Your task to perform on an android device: toggle sleep mode Image 0: 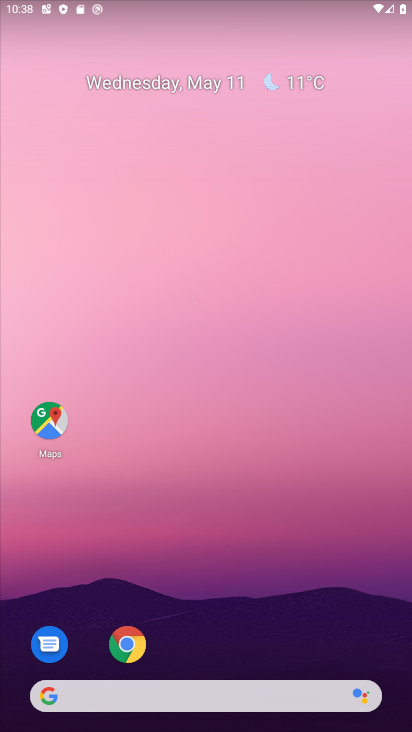
Step 0: drag from (310, 673) to (302, 14)
Your task to perform on an android device: toggle sleep mode Image 1: 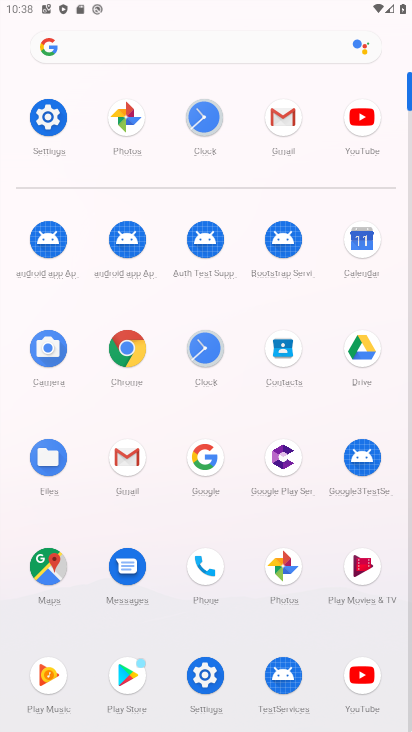
Step 1: click (49, 122)
Your task to perform on an android device: toggle sleep mode Image 2: 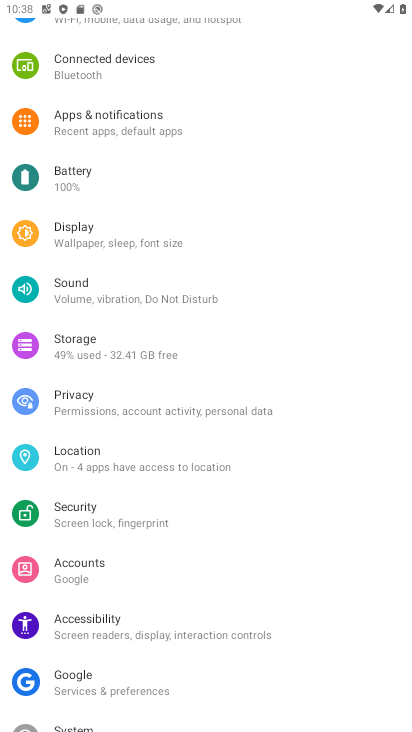
Step 2: click (82, 235)
Your task to perform on an android device: toggle sleep mode Image 3: 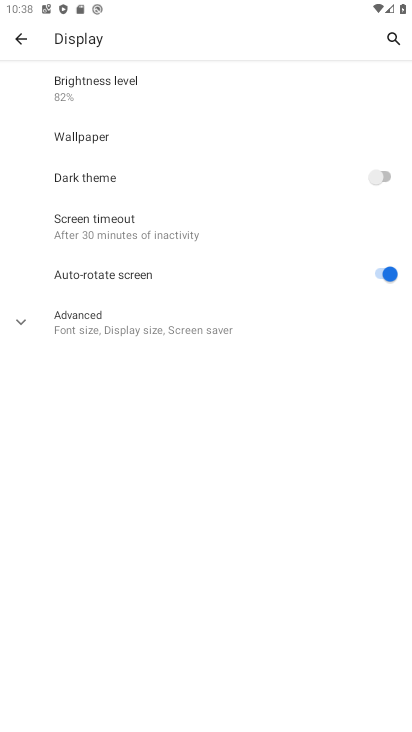
Step 3: click (23, 331)
Your task to perform on an android device: toggle sleep mode Image 4: 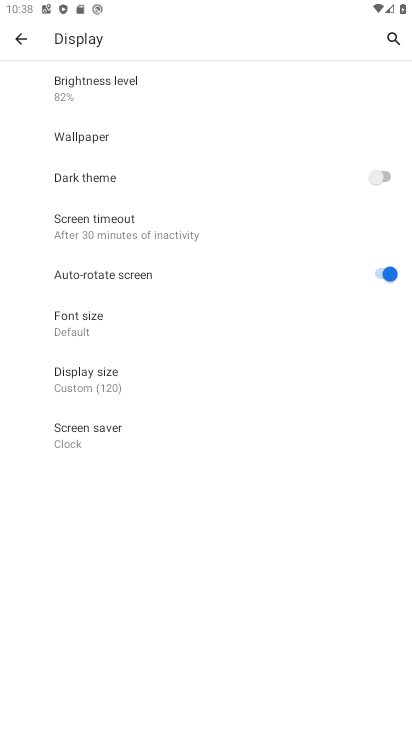
Step 4: task complete